Your task to perform on an android device: Go to location settings Image 0: 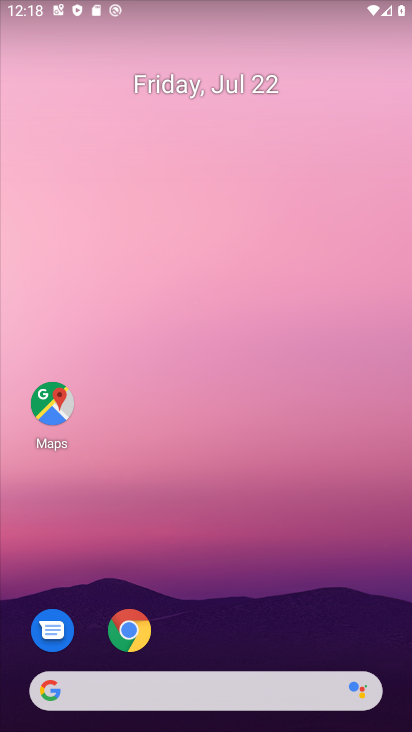
Step 0: drag from (265, 614) to (234, 95)
Your task to perform on an android device: Go to location settings Image 1: 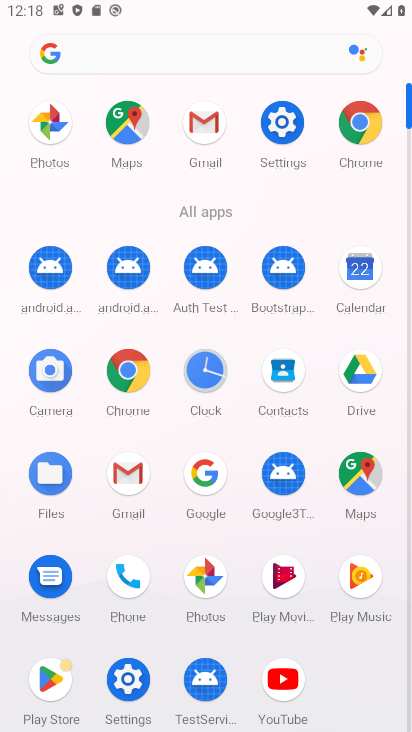
Step 1: click (121, 679)
Your task to perform on an android device: Go to location settings Image 2: 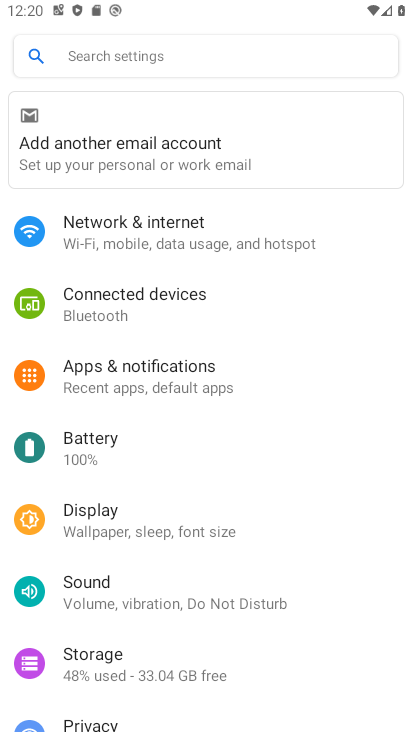
Step 2: drag from (156, 451) to (164, 270)
Your task to perform on an android device: Go to location settings Image 3: 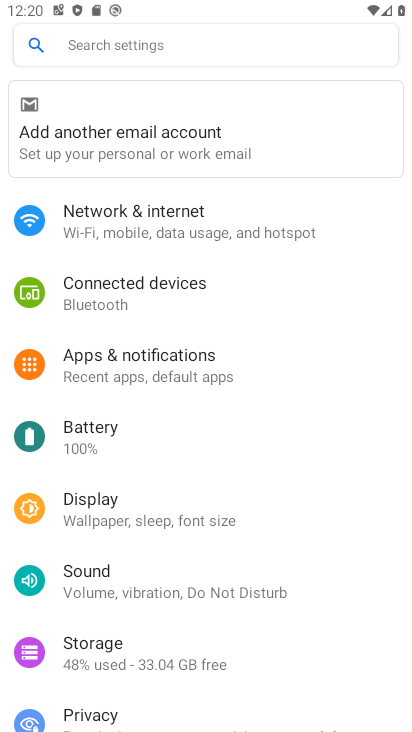
Step 3: drag from (173, 661) to (199, 357)
Your task to perform on an android device: Go to location settings Image 4: 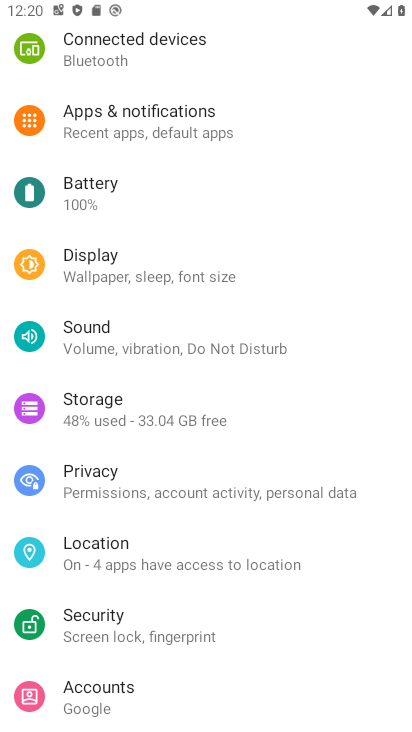
Step 4: click (123, 556)
Your task to perform on an android device: Go to location settings Image 5: 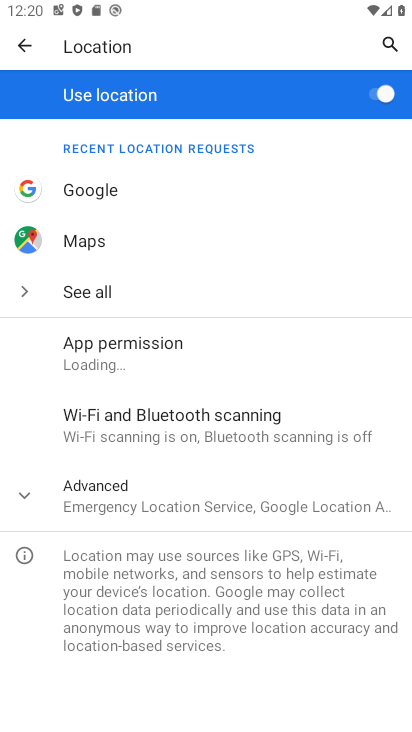
Step 5: task complete